Your task to perform on an android device: Show me popular games on the Play Store Image 0: 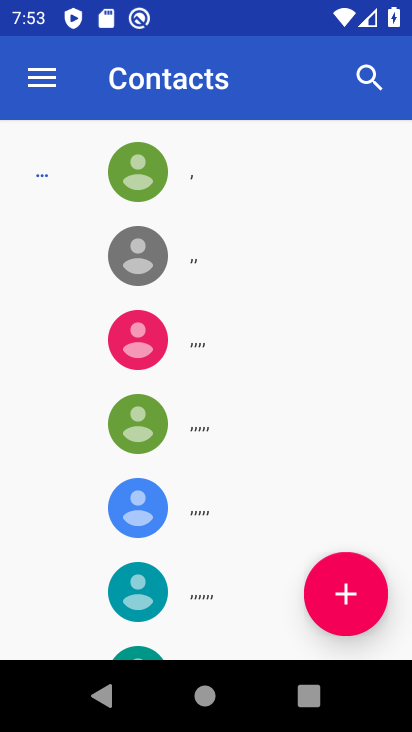
Step 0: press home button
Your task to perform on an android device: Show me popular games on the Play Store Image 1: 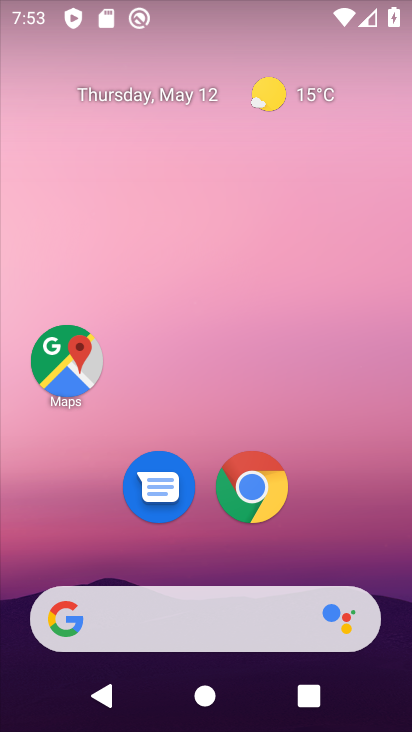
Step 1: drag from (332, 446) to (233, 22)
Your task to perform on an android device: Show me popular games on the Play Store Image 2: 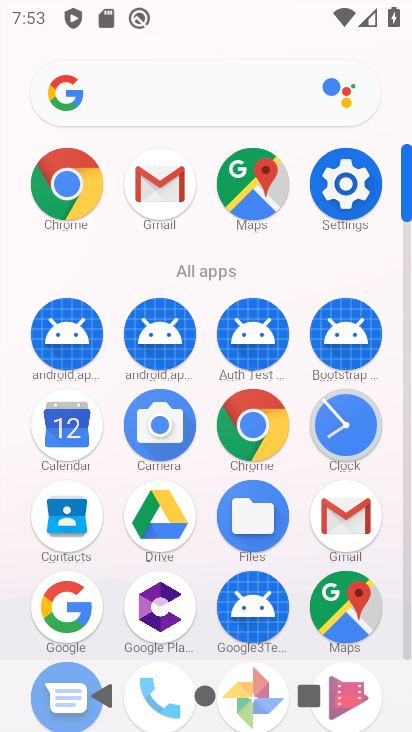
Step 2: drag from (391, 644) to (397, 172)
Your task to perform on an android device: Show me popular games on the Play Store Image 3: 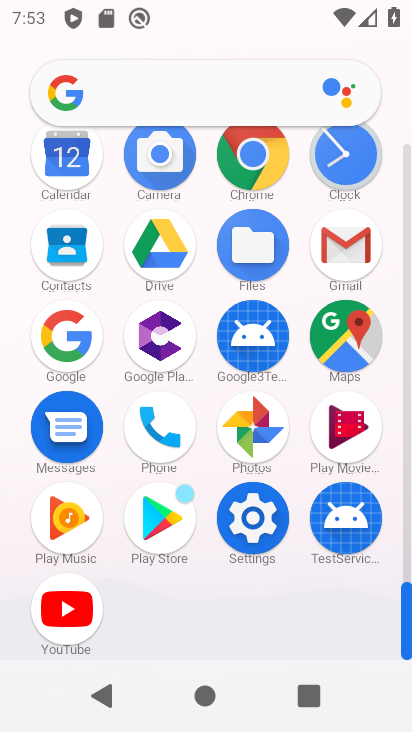
Step 3: click (158, 513)
Your task to perform on an android device: Show me popular games on the Play Store Image 4: 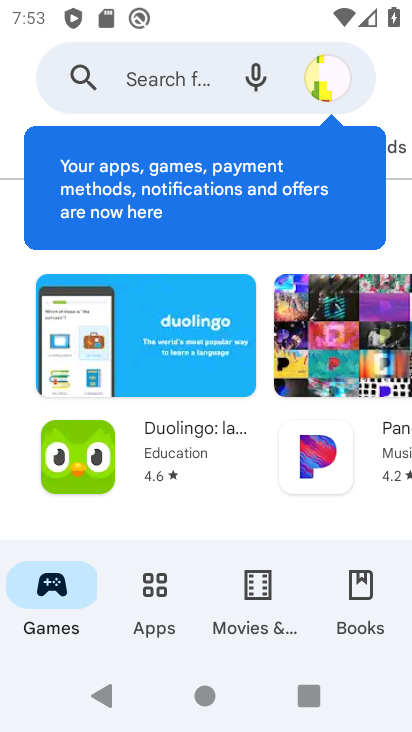
Step 4: click (187, 66)
Your task to perform on an android device: Show me popular games on the Play Store Image 5: 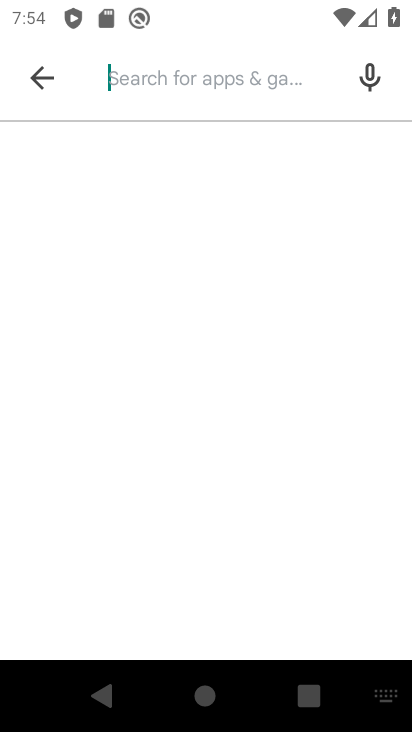
Step 5: type "popular games"
Your task to perform on an android device: Show me popular games on the Play Store Image 6: 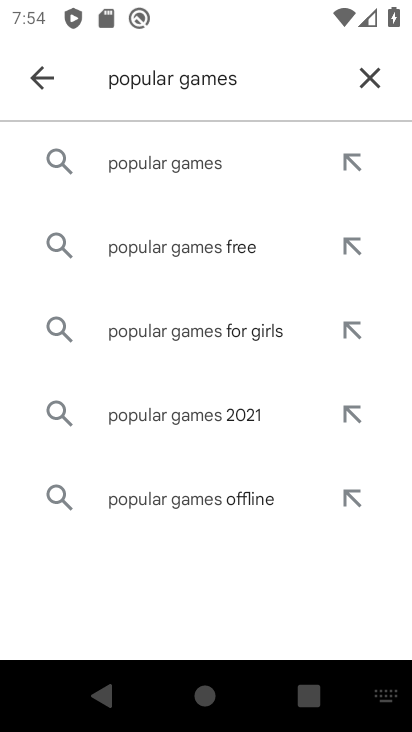
Step 6: click (179, 165)
Your task to perform on an android device: Show me popular games on the Play Store Image 7: 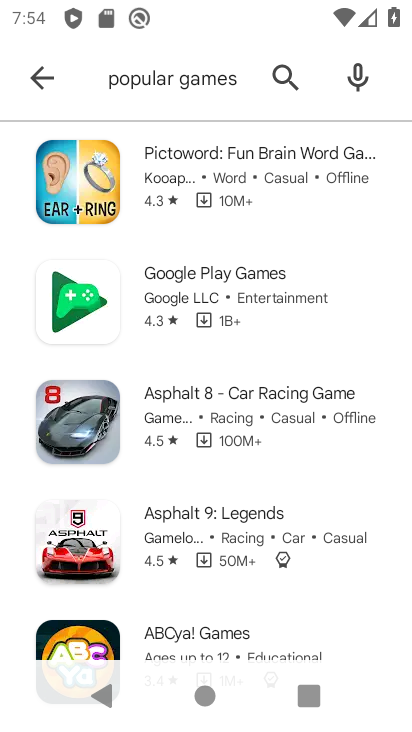
Step 7: task complete